Your task to perform on an android device: Open the calendar app, open the side menu, and click the "Day" option Image 0: 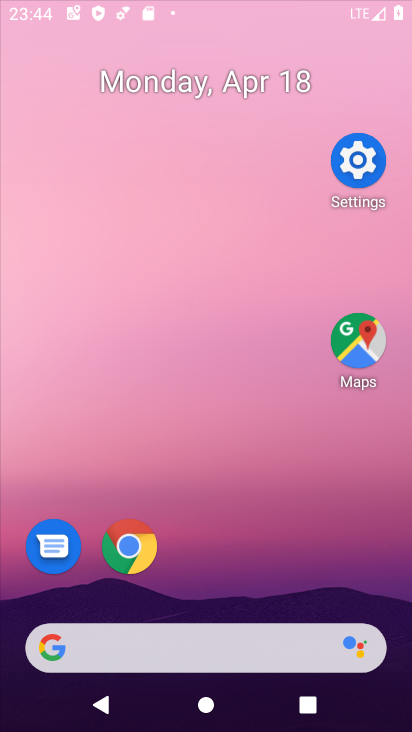
Step 0: click (229, 91)
Your task to perform on an android device: Open the calendar app, open the side menu, and click the "Day" option Image 1: 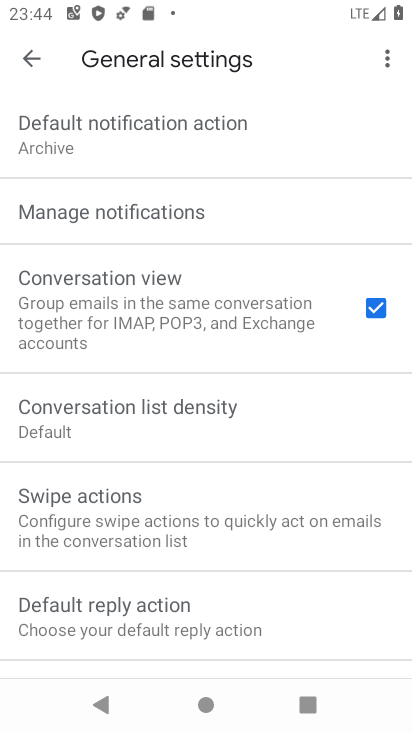
Step 1: press home button
Your task to perform on an android device: Open the calendar app, open the side menu, and click the "Day" option Image 2: 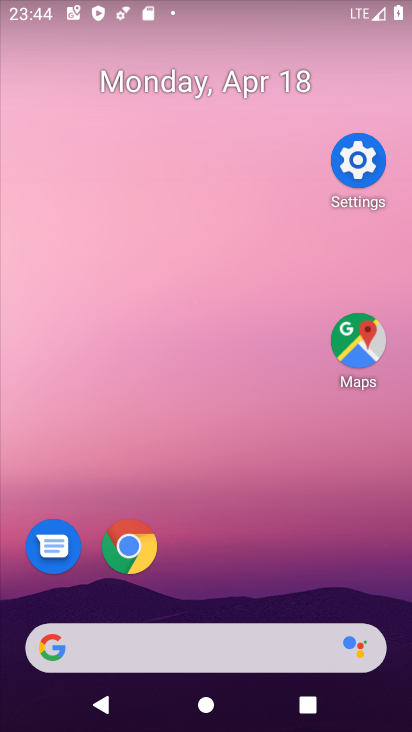
Step 2: drag from (253, 667) to (266, 90)
Your task to perform on an android device: Open the calendar app, open the side menu, and click the "Day" option Image 3: 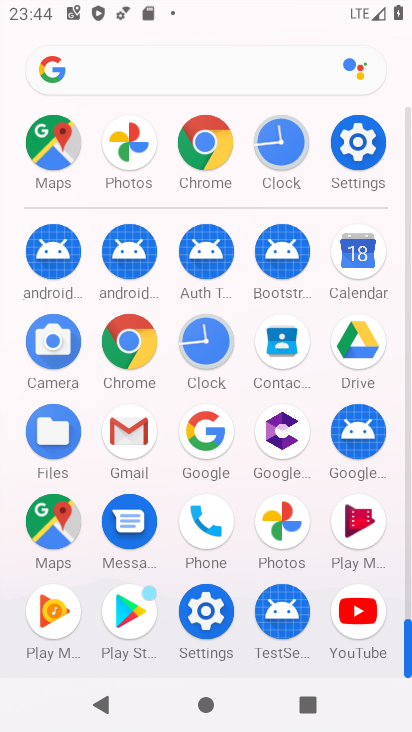
Step 3: click (361, 252)
Your task to perform on an android device: Open the calendar app, open the side menu, and click the "Day" option Image 4: 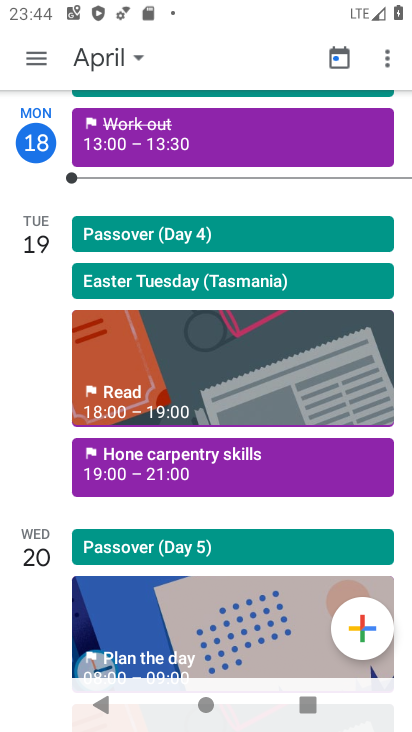
Step 4: click (41, 54)
Your task to perform on an android device: Open the calendar app, open the side menu, and click the "Day" option Image 5: 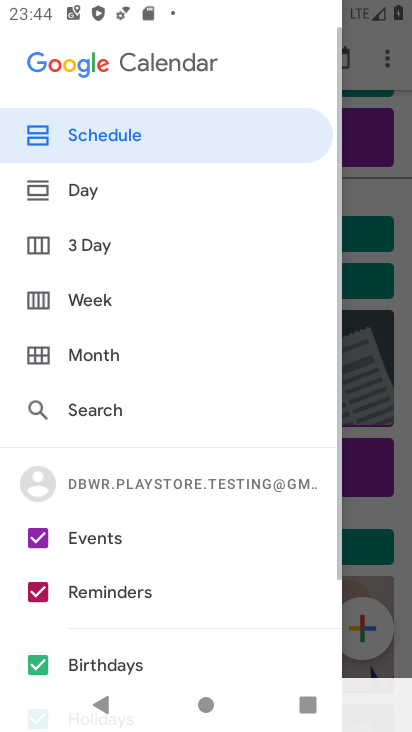
Step 5: click (68, 187)
Your task to perform on an android device: Open the calendar app, open the side menu, and click the "Day" option Image 6: 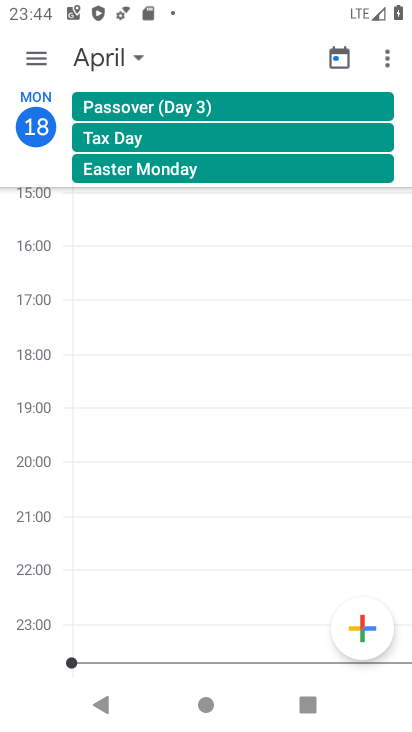
Step 6: task complete